Your task to perform on an android device: Search for the best 100% cotton t-shirts Image 0: 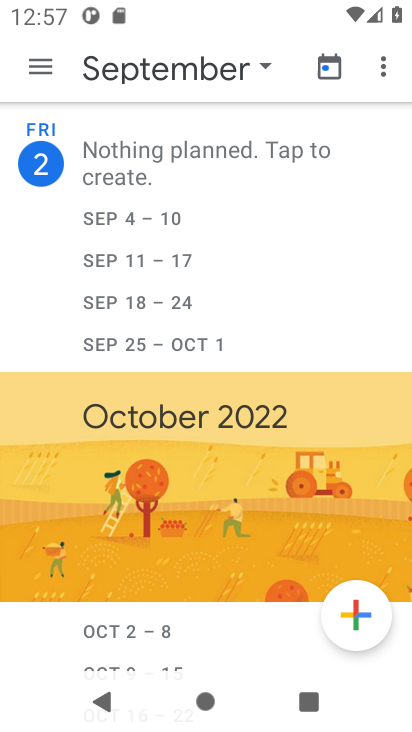
Step 0: press home button
Your task to perform on an android device: Search for the best 100% cotton t-shirts Image 1: 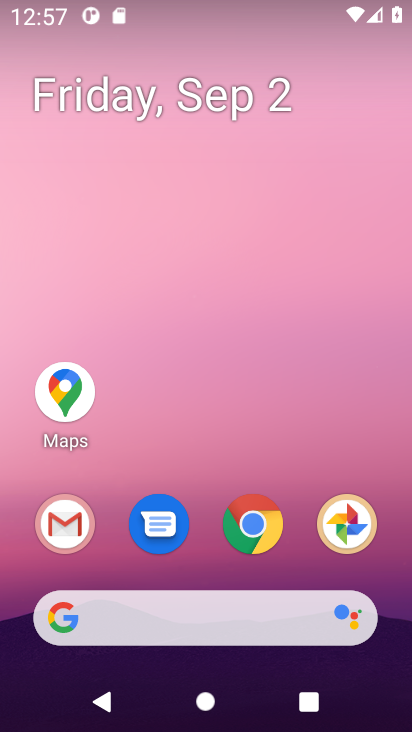
Step 1: click (253, 630)
Your task to perform on an android device: Search for the best 100% cotton t-shirts Image 2: 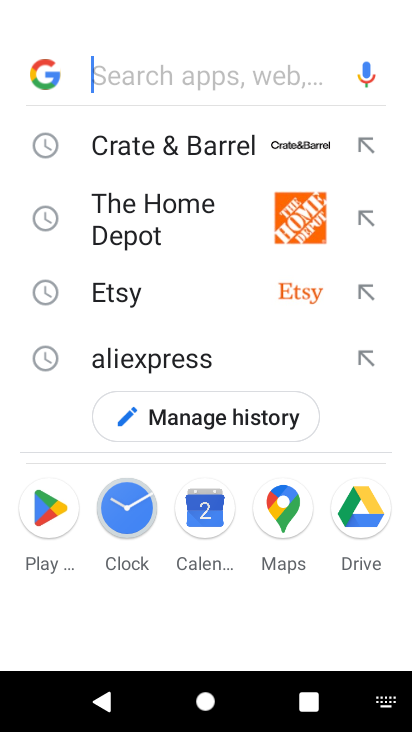
Step 2: press enter
Your task to perform on an android device: Search for the best 100% cotton t-shirts Image 3: 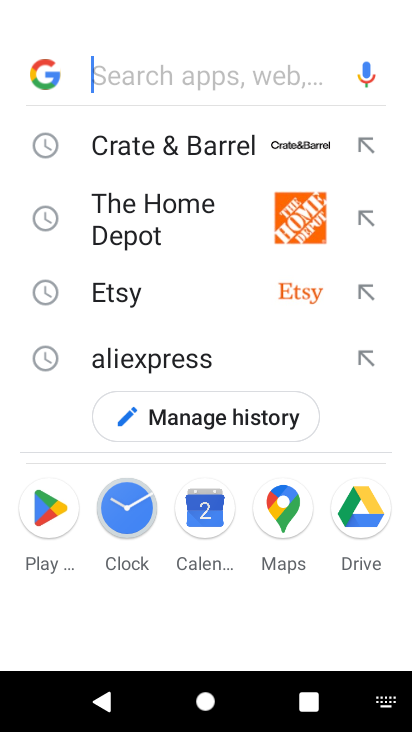
Step 3: type "best 100% cotton t-shirts"
Your task to perform on an android device: Search for the best 100% cotton t-shirts Image 4: 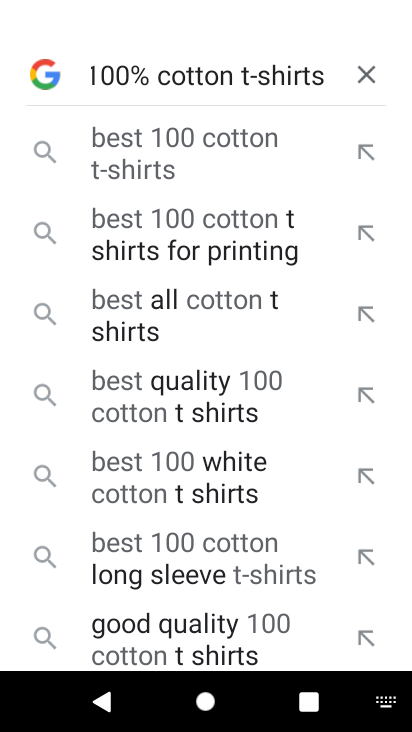
Step 4: click (202, 151)
Your task to perform on an android device: Search for the best 100% cotton t-shirts Image 5: 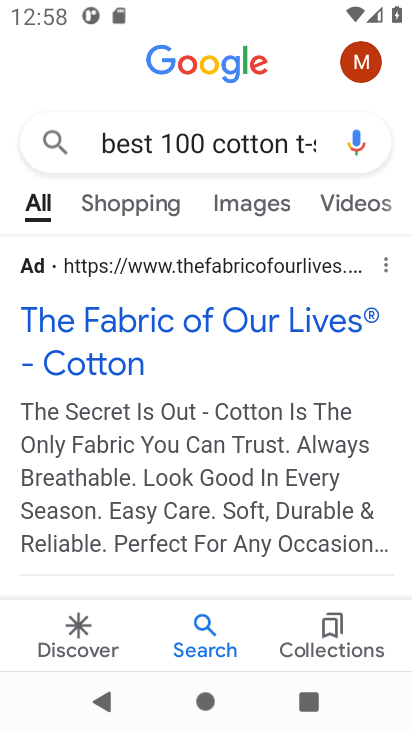
Step 5: drag from (364, 458) to (380, 262)
Your task to perform on an android device: Search for the best 100% cotton t-shirts Image 6: 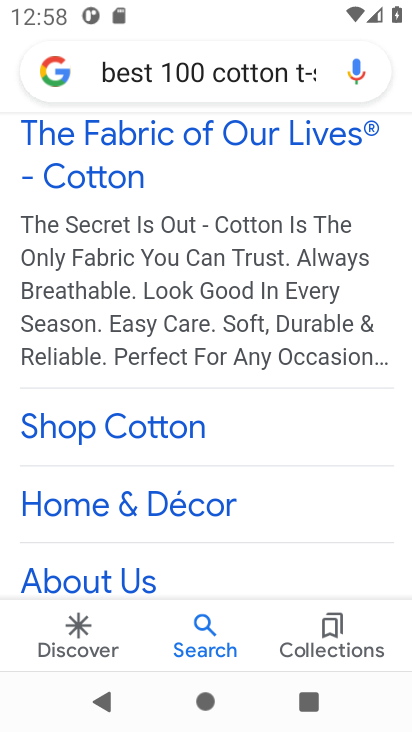
Step 6: drag from (351, 545) to (357, 167)
Your task to perform on an android device: Search for the best 100% cotton t-shirts Image 7: 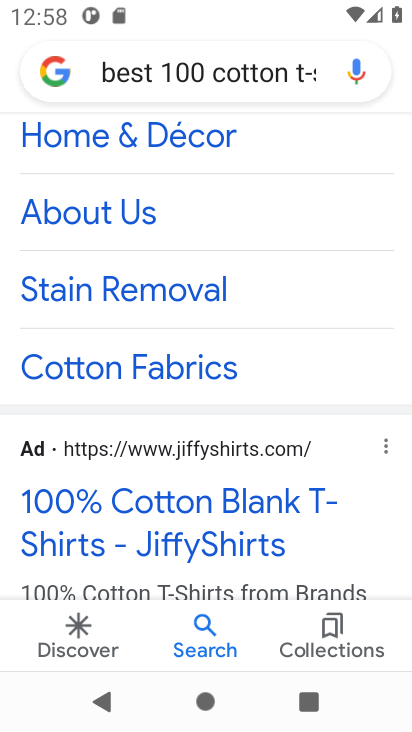
Step 7: drag from (346, 488) to (341, 297)
Your task to perform on an android device: Search for the best 100% cotton t-shirts Image 8: 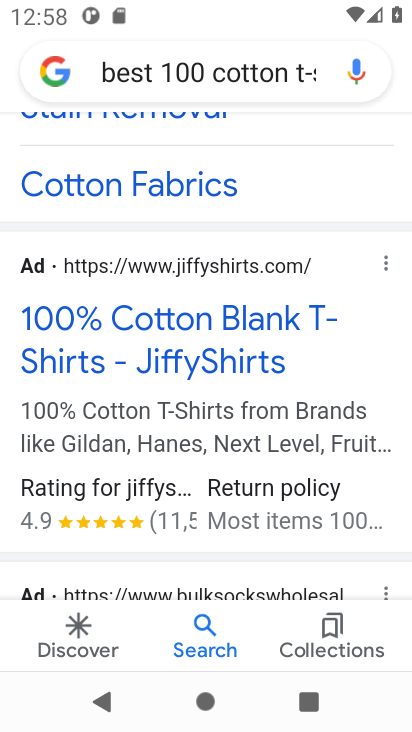
Step 8: click (227, 322)
Your task to perform on an android device: Search for the best 100% cotton t-shirts Image 9: 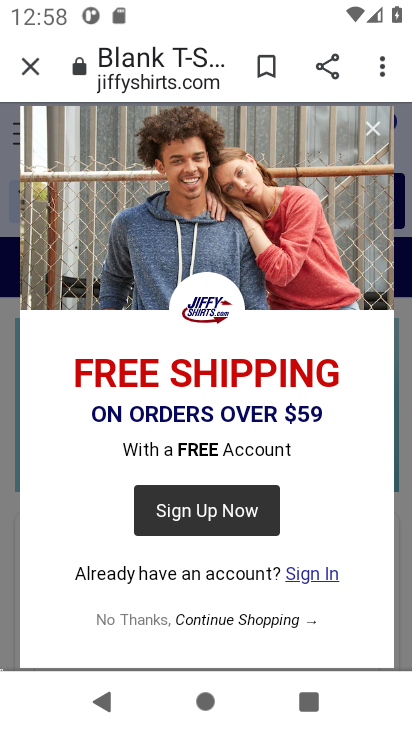
Step 9: click (369, 118)
Your task to perform on an android device: Search for the best 100% cotton t-shirts Image 10: 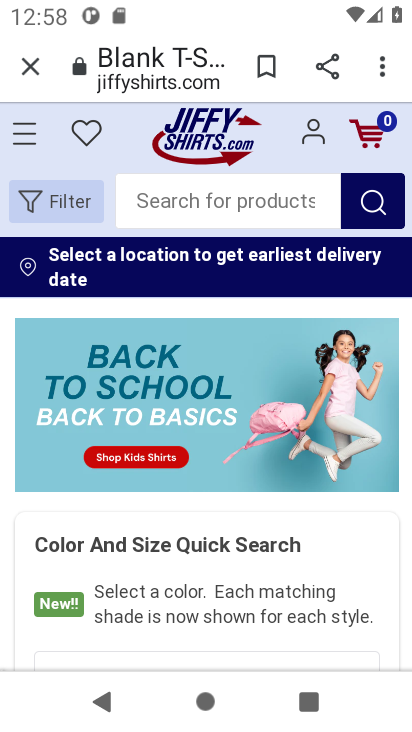
Step 10: task complete